Your task to perform on an android device: turn vacation reply on in the gmail app Image 0: 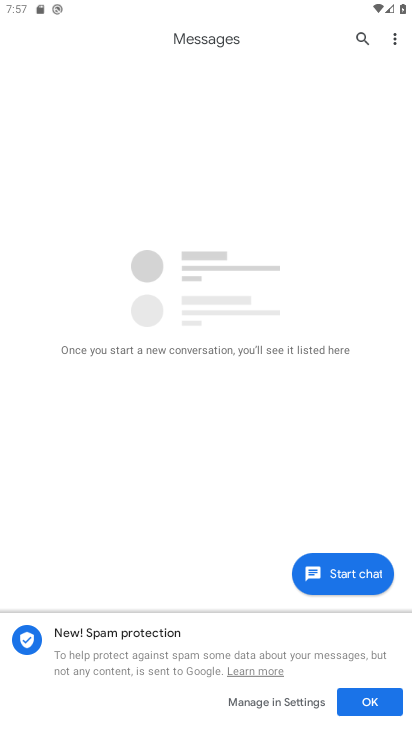
Step 0: press home button
Your task to perform on an android device: turn vacation reply on in the gmail app Image 1: 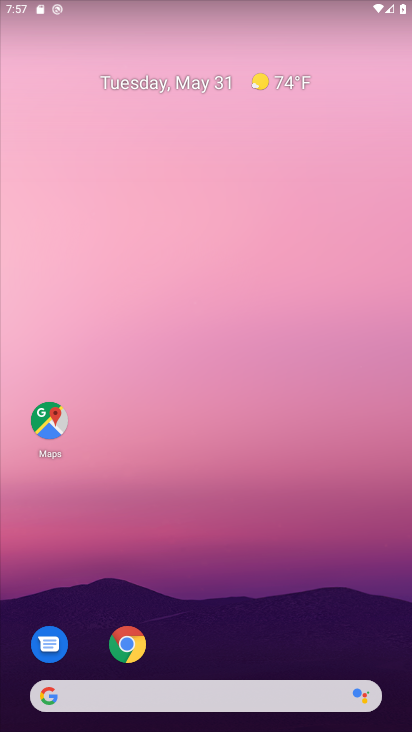
Step 1: drag from (207, 650) to (259, 115)
Your task to perform on an android device: turn vacation reply on in the gmail app Image 2: 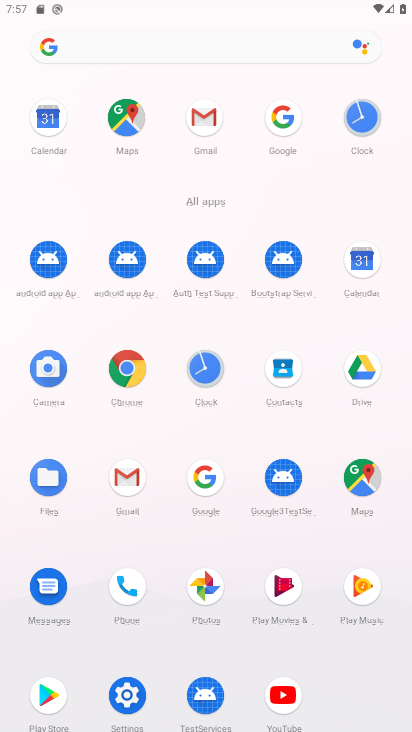
Step 2: click (198, 115)
Your task to perform on an android device: turn vacation reply on in the gmail app Image 3: 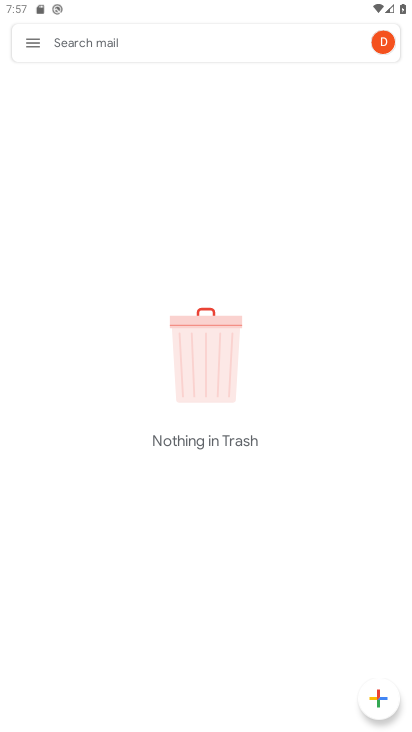
Step 3: click (36, 43)
Your task to perform on an android device: turn vacation reply on in the gmail app Image 4: 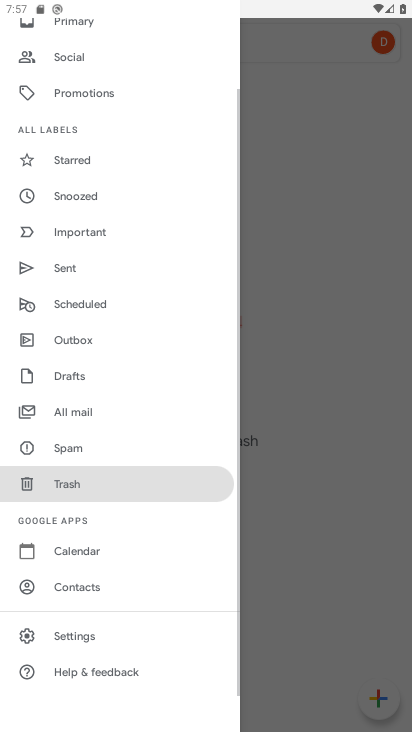
Step 4: click (85, 615)
Your task to perform on an android device: turn vacation reply on in the gmail app Image 5: 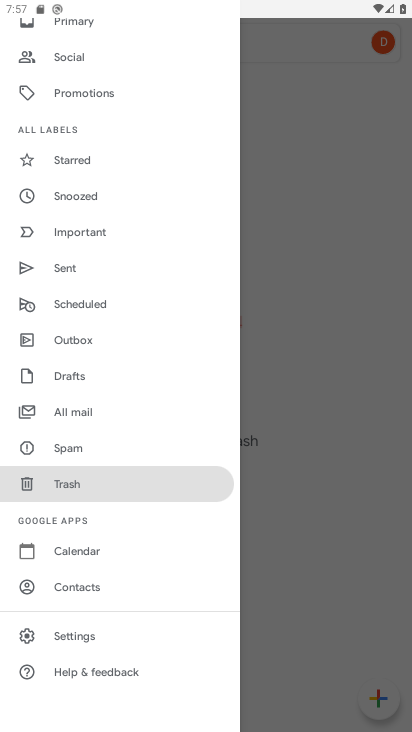
Step 5: click (97, 634)
Your task to perform on an android device: turn vacation reply on in the gmail app Image 6: 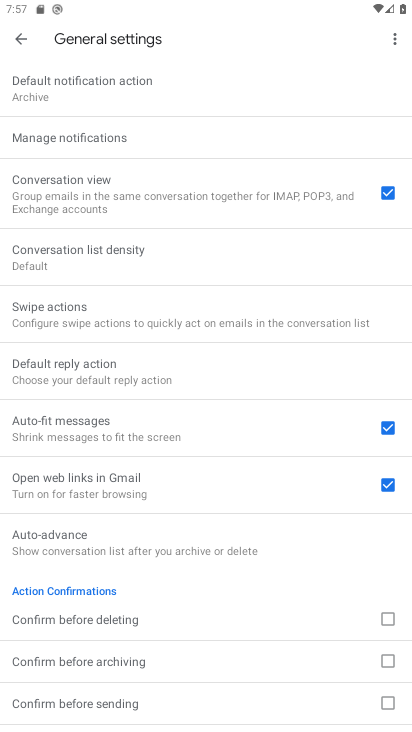
Step 6: click (21, 38)
Your task to perform on an android device: turn vacation reply on in the gmail app Image 7: 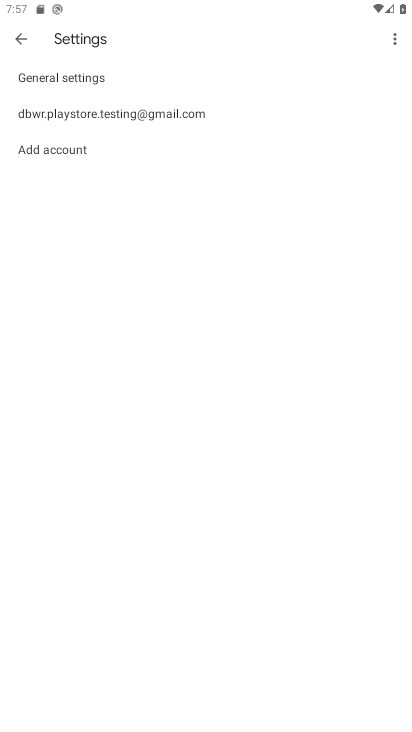
Step 7: click (81, 110)
Your task to perform on an android device: turn vacation reply on in the gmail app Image 8: 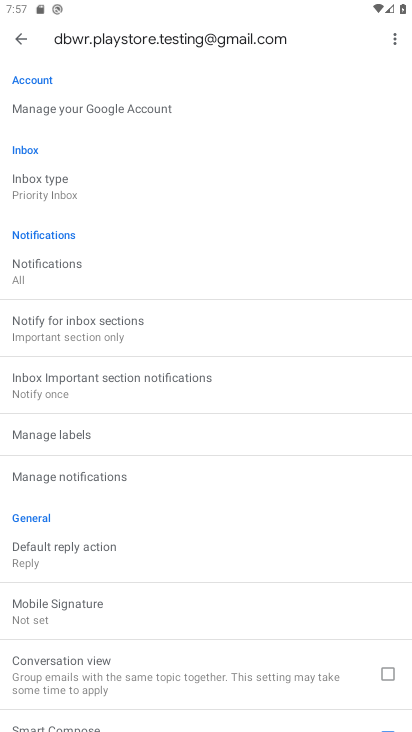
Step 8: drag from (116, 628) to (175, 197)
Your task to perform on an android device: turn vacation reply on in the gmail app Image 9: 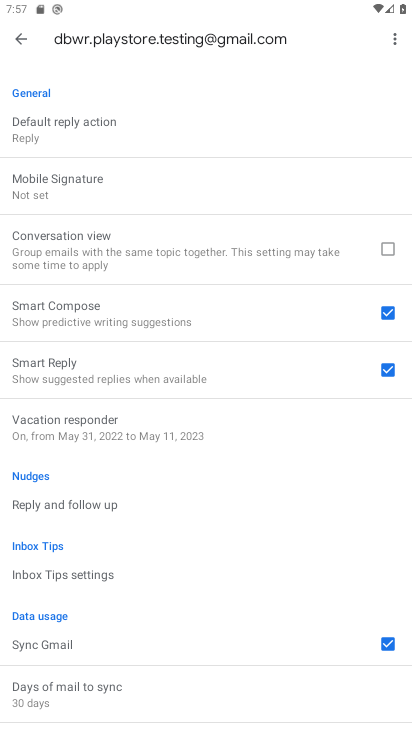
Step 9: click (143, 414)
Your task to perform on an android device: turn vacation reply on in the gmail app Image 10: 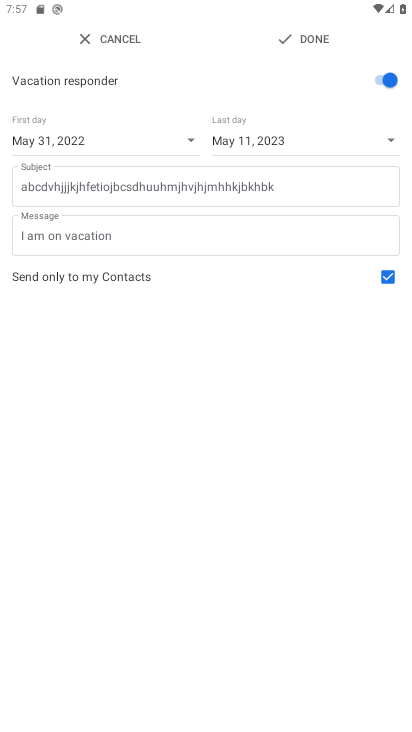
Step 10: task complete